Your task to perform on an android device: What is the speed of a train? Image 0: 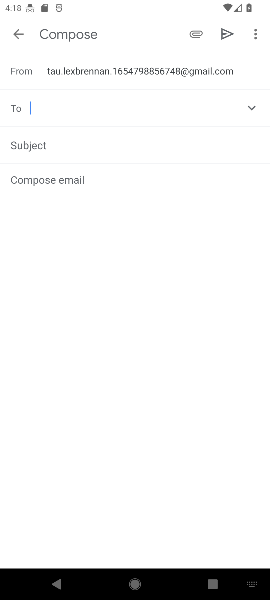
Step 0: press home button
Your task to perform on an android device: What is the speed of a train? Image 1: 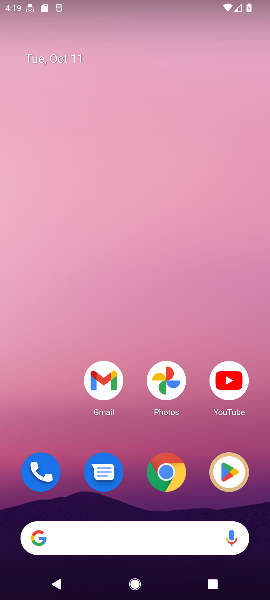
Step 1: click (177, 466)
Your task to perform on an android device: What is the speed of a train? Image 2: 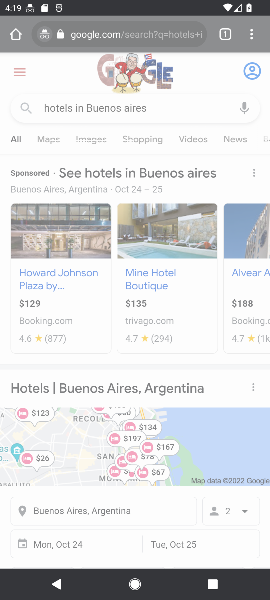
Step 2: click (165, 466)
Your task to perform on an android device: What is the speed of a train? Image 3: 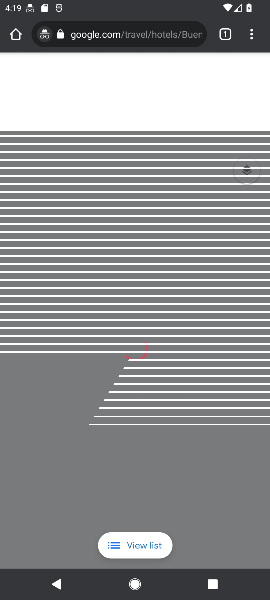
Step 3: click (88, 40)
Your task to perform on an android device: What is the speed of a train? Image 4: 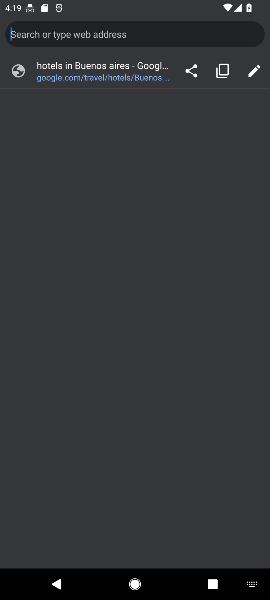
Step 4: type "What is the speed of a train?"
Your task to perform on an android device: What is the speed of a train? Image 5: 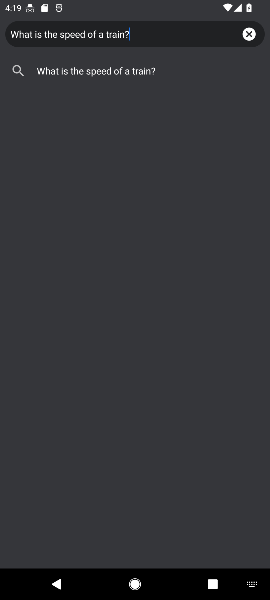
Step 5: click (28, 73)
Your task to perform on an android device: What is the speed of a train? Image 6: 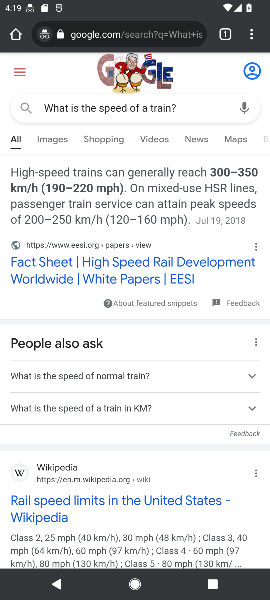
Step 6: task complete